Your task to perform on an android device: change timer sound Image 0: 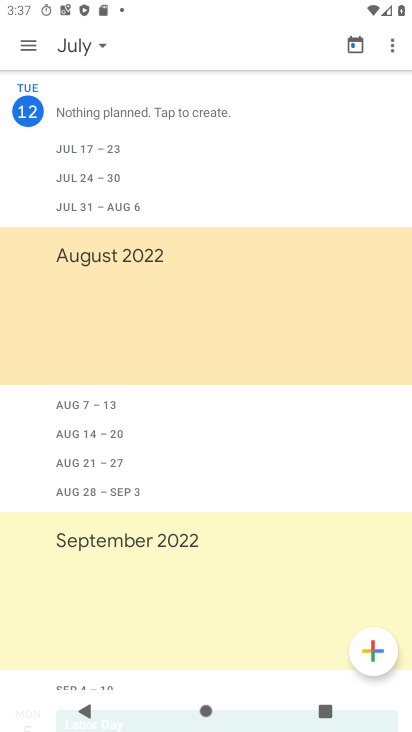
Step 0: press home button
Your task to perform on an android device: change timer sound Image 1: 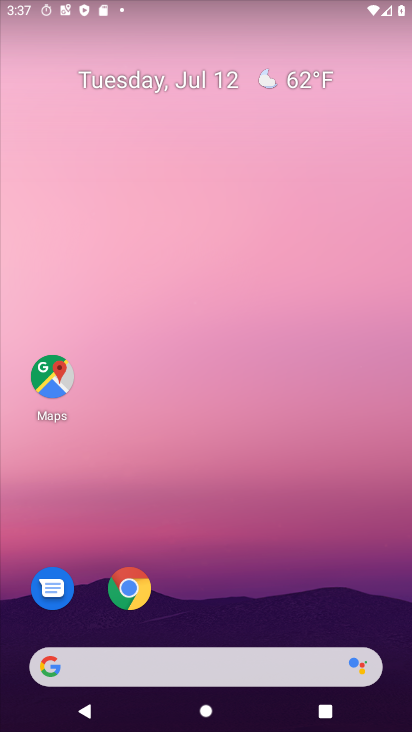
Step 1: drag from (225, 511) to (188, 3)
Your task to perform on an android device: change timer sound Image 2: 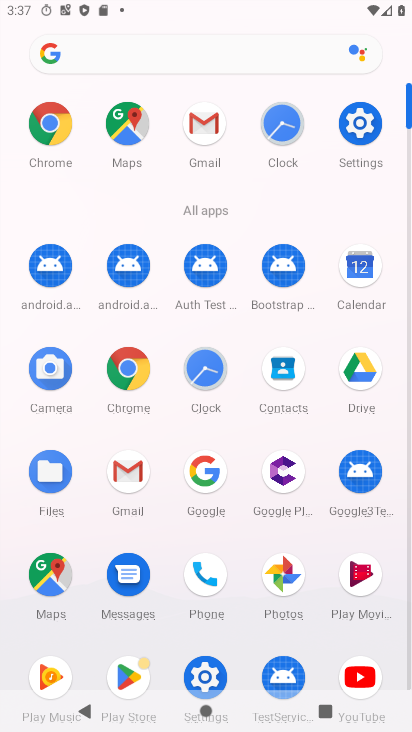
Step 2: click (199, 373)
Your task to perform on an android device: change timer sound Image 3: 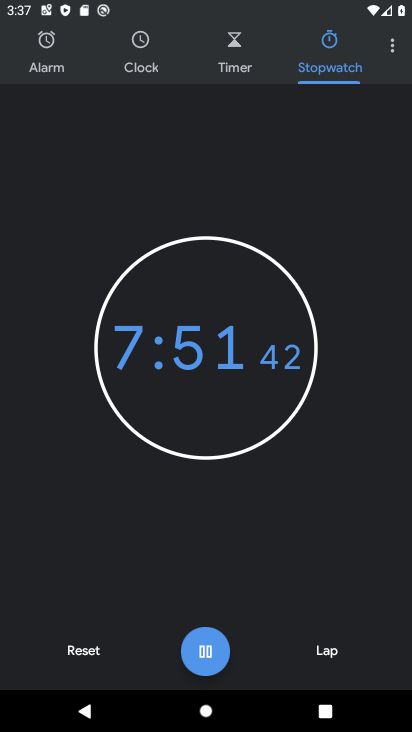
Step 3: click (392, 58)
Your task to perform on an android device: change timer sound Image 4: 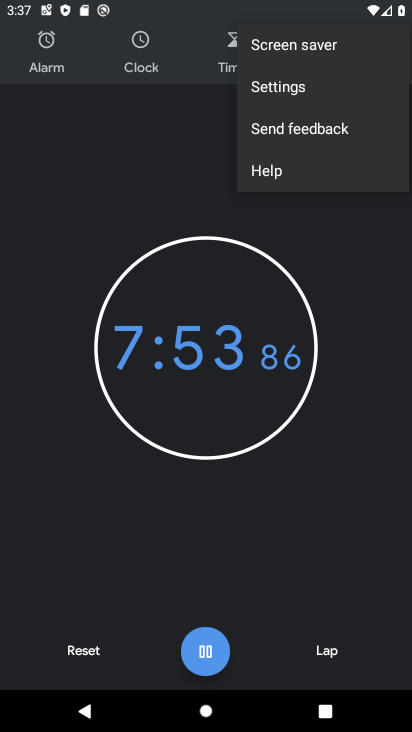
Step 4: click (282, 96)
Your task to perform on an android device: change timer sound Image 5: 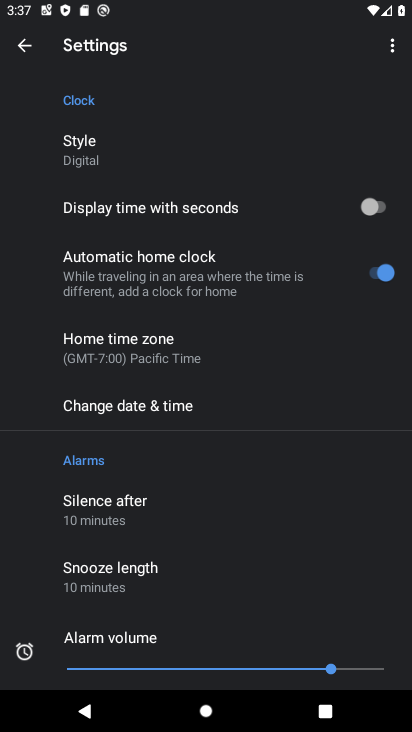
Step 5: drag from (123, 595) to (193, 218)
Your task to perform on an android device: change timer sound Image 6: 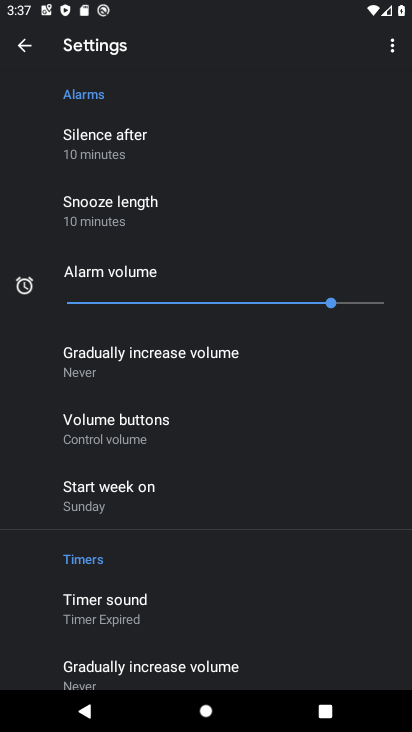
Step 6: click (142, 618)
Your task to perform on an android device: change timer sound Image 7: 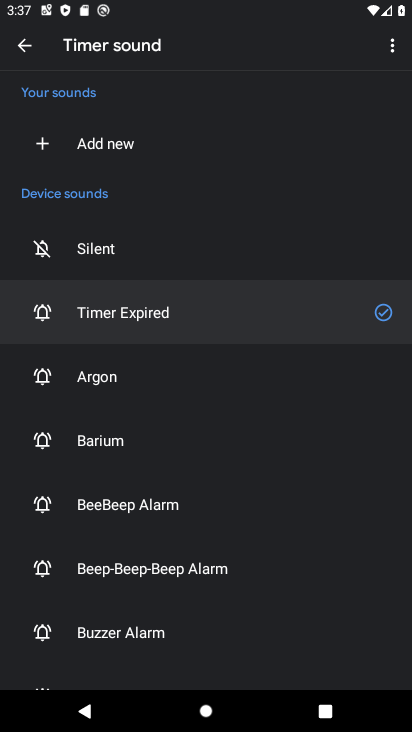
Step 7: click (116, 637)
Your task to perform on an android device: change timer sound Image 8: 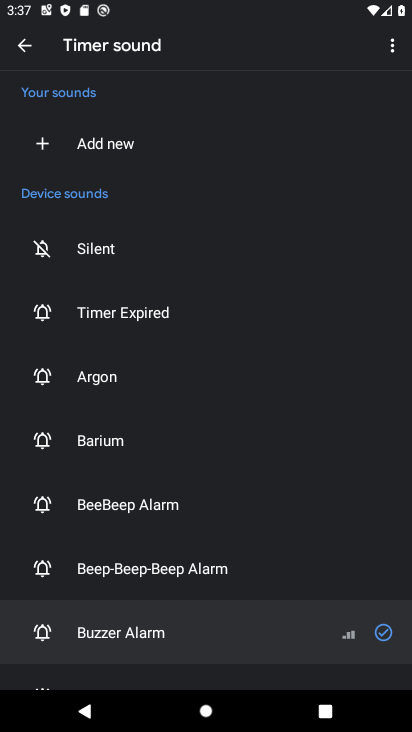
Step 8: task complete